Your task to perform on an android device: turn on wifi Image 0: 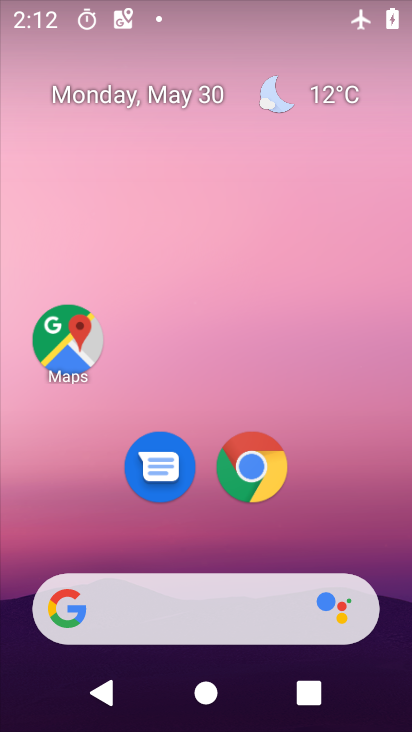
Step 0: drag from (402, 691) to (271, 85)
Your task to perform on an android device: turn on wifi Image 1: 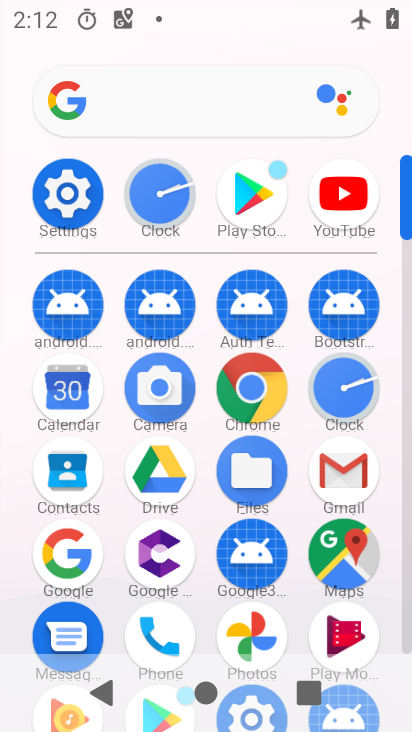
Step 1: click (52, 195)
Your task to perform on an android device: turn on wifi Image 2: 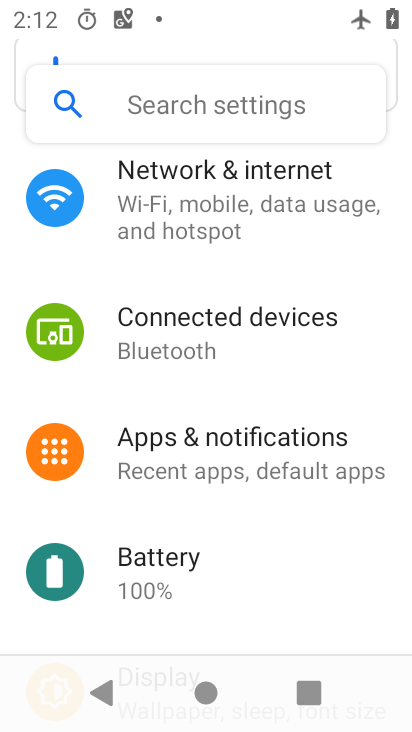
Step 2: click (236, 200)
Your task to perform on an android device: turn on wifi Image 3: 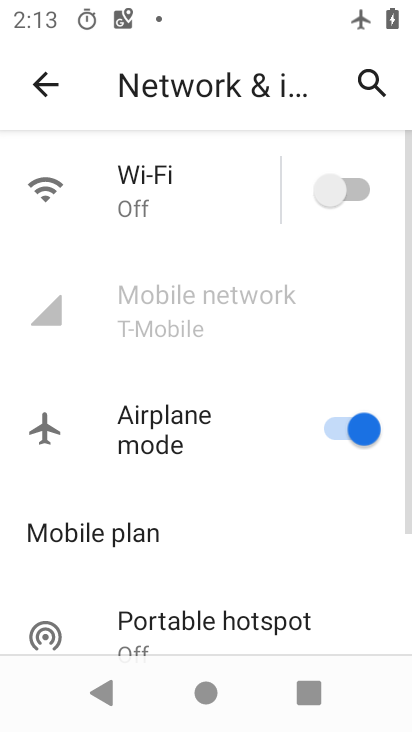
Step 3: click (357, 186)
Your task to perform on an android device: turn on wifi Image 4: 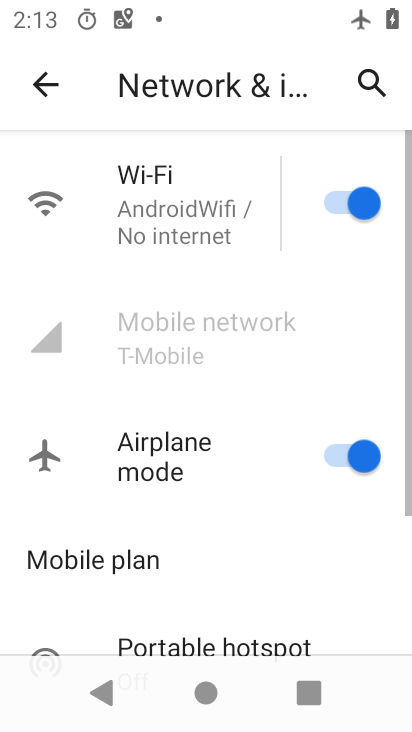
Step 4: task complete